Your task to perform on an android device: check android version Image 0: 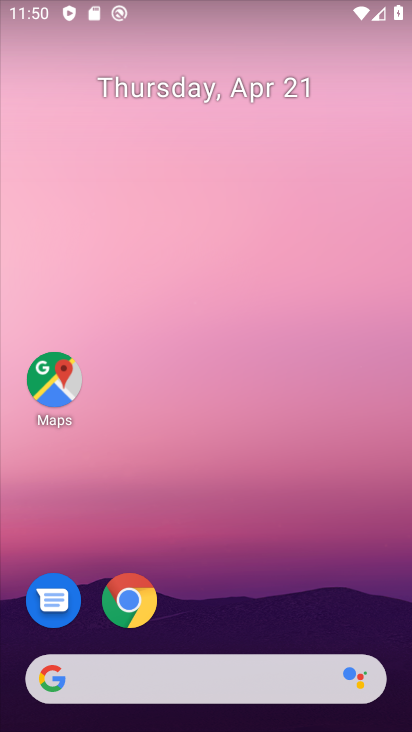
Step 0: drag from (363, 385) to (364, 215)
Your task to perform on an android device: check android version Image 1: 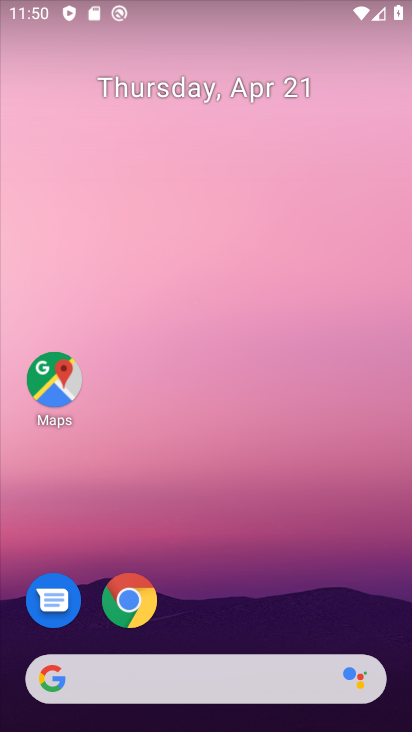
Step 1: drag from (400, 639) to (397, 138)
Your task to perform on an android device: check android version Image 2: 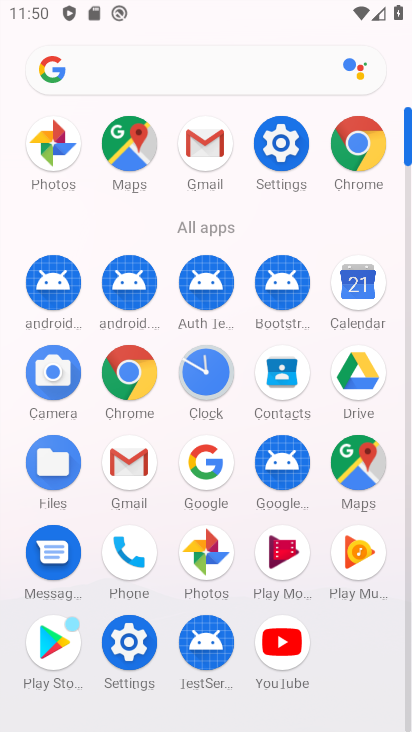
Step 2: click (271, 153)
Your task to perform on an android device: check android version Image 3: 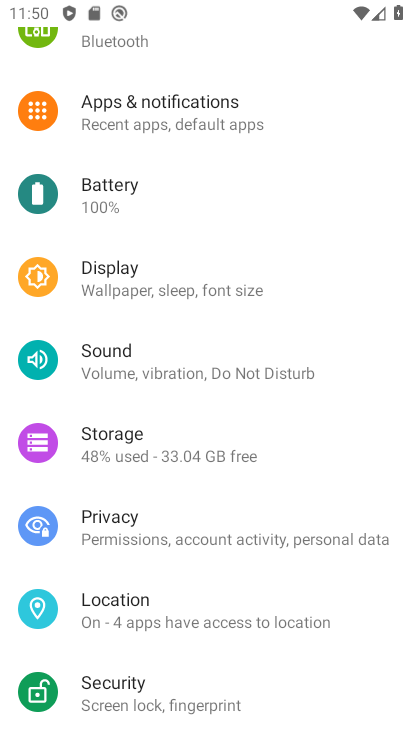
Step 3: drag from (318, 642) to (339, 239)
Your task to perform on an android device: check android version Image 4: 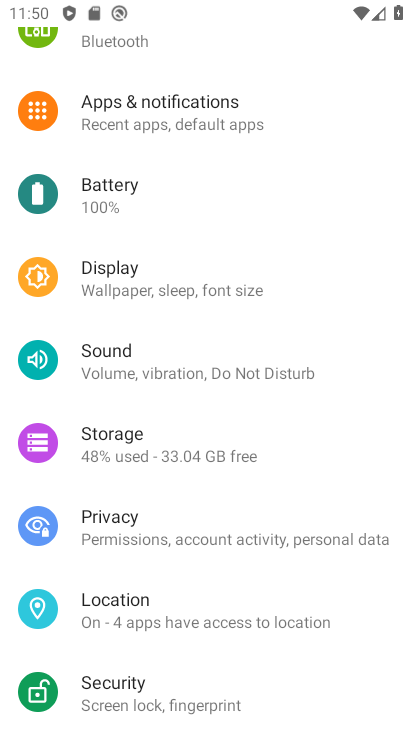
Step 4: drag from (373, 701) to (382, 155)
Your task to perform on an android device: check android version Image 5: 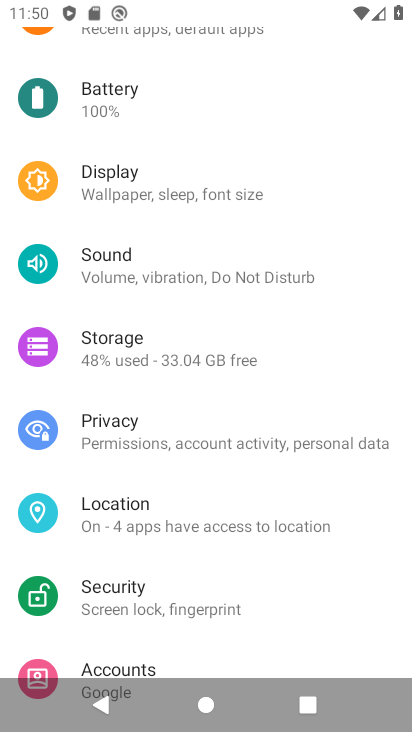
Step 5: drag from (372, 532) to (354, 143)
Your task to perform on an android device: check android version Image 6: 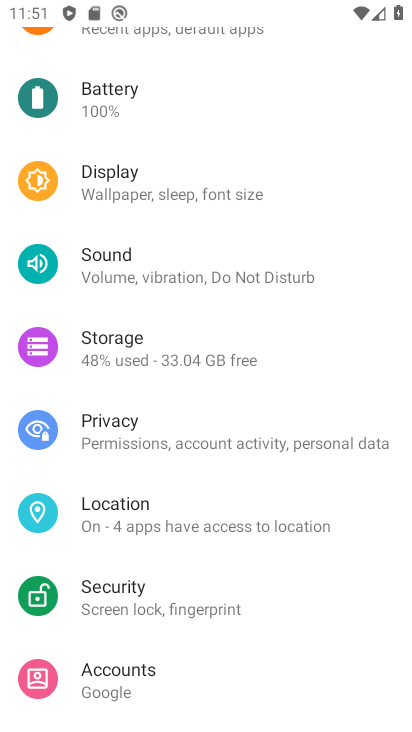
Step 6: drag from (353, 507) to (353, 225)
Your task to perform on an android device: check android version Image 7: 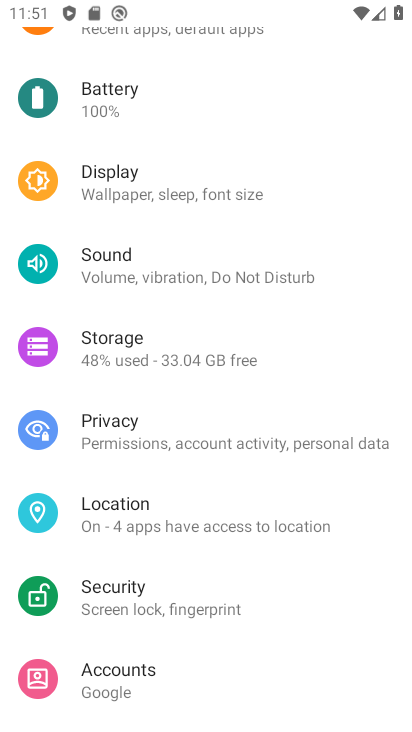
Step 7: drag from (362, 647) to (368, 214)
Your task to perform on an android device: check android version Image 8: 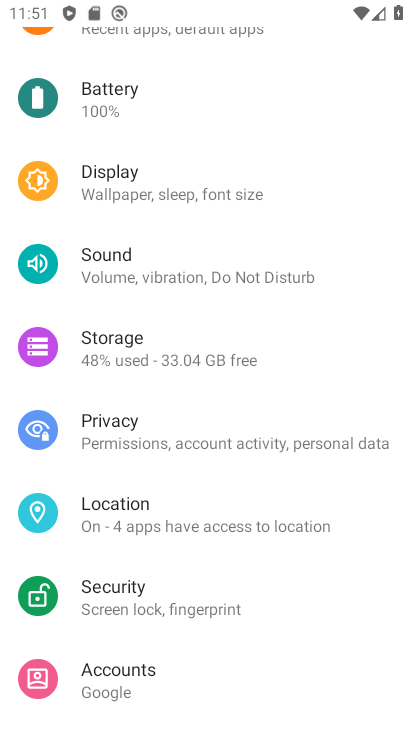
Step 8: drag from (353, 662) to (336, 238)
Your task to perform on an android device: check android version Image 9: 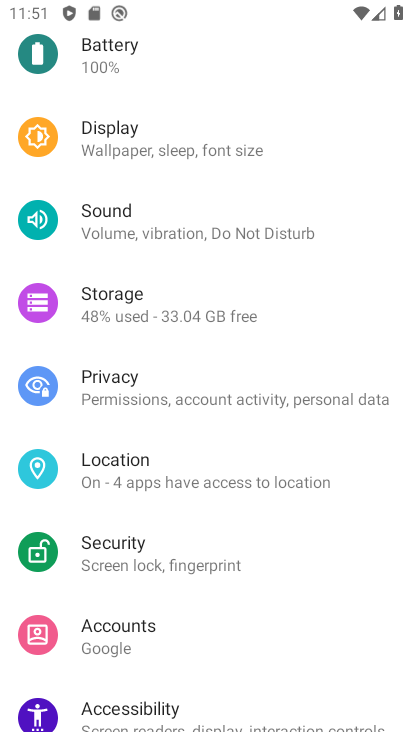
Step 9: drag from (350, 626) to (364, 233)
Your task to perform on an android device: check android version Image 10: 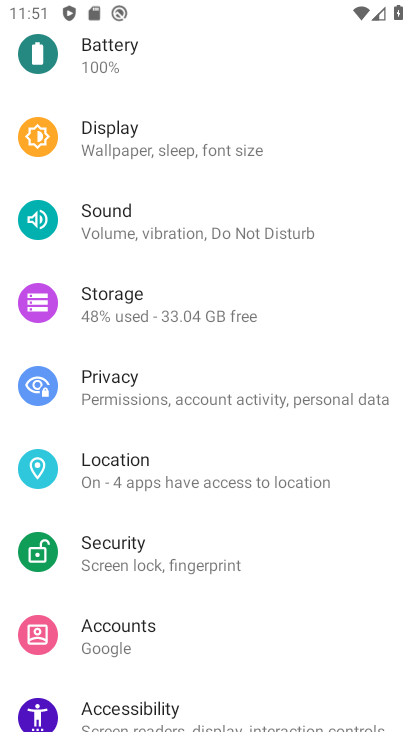
Step 10: drag from (367, 683) to (339, 177)
Your task to perform on an android device: check android version Image 11: 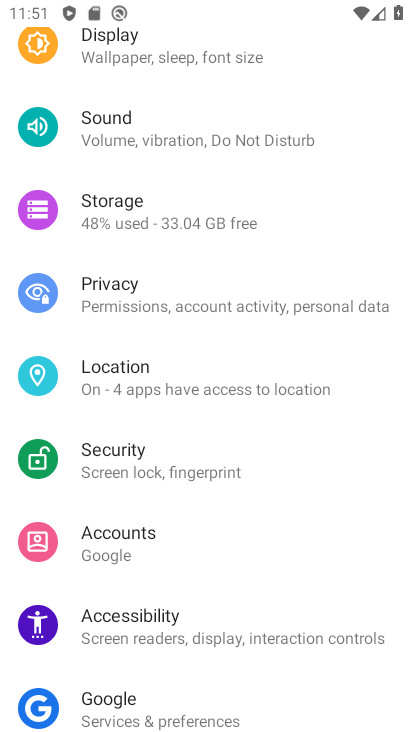
Step 11: drag from (379, 317) to (374, 189)
Your task to perform on an android device: check android version Image 12: 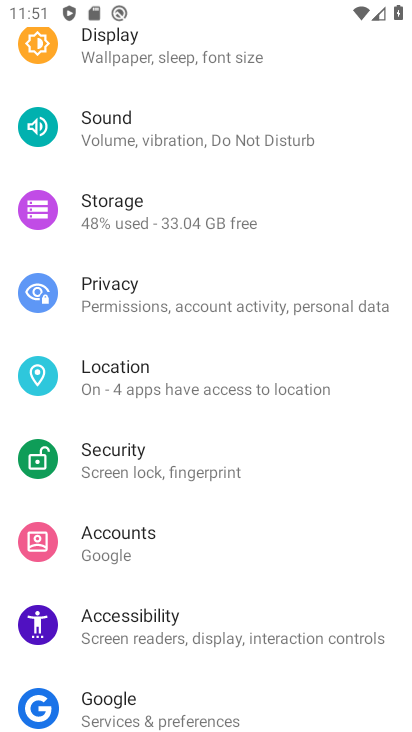
Step 12: drag from (358, 717) to (323, 376)
Your task to perform on an android device: check android version Image 13: 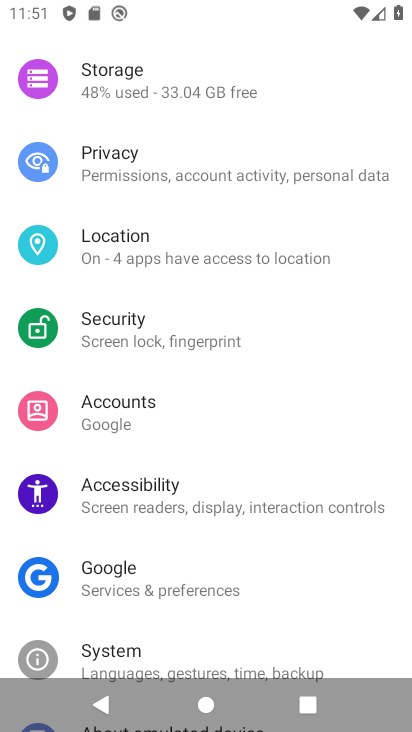
Step 13: drag from (371, 608) to (366, 231)
Your task to perform on an android device: check android version Image 14: 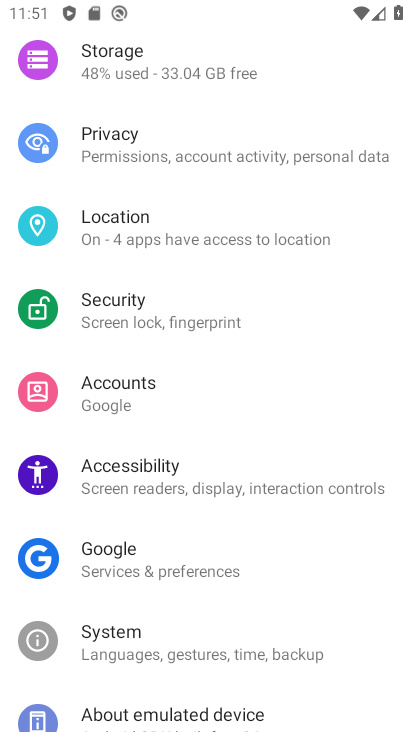
Step 14: click (62, 715)
Your task to perform on an android device: check android version Image 15: 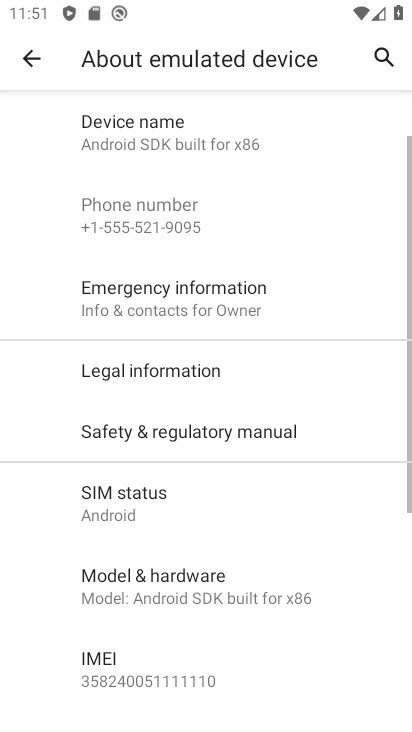
Step 15: drag from (355, 643) to (379, 136)
Your task to perform on an android device: check android version Image 16: 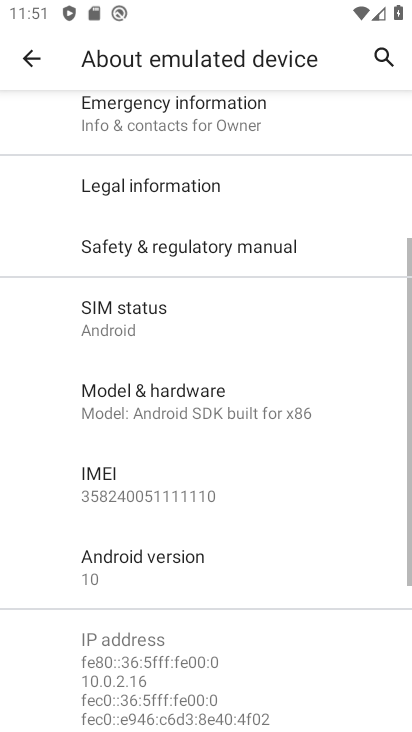
Step 16: click (132, 562)
Your task to perform on an android device: check android version Image 17: 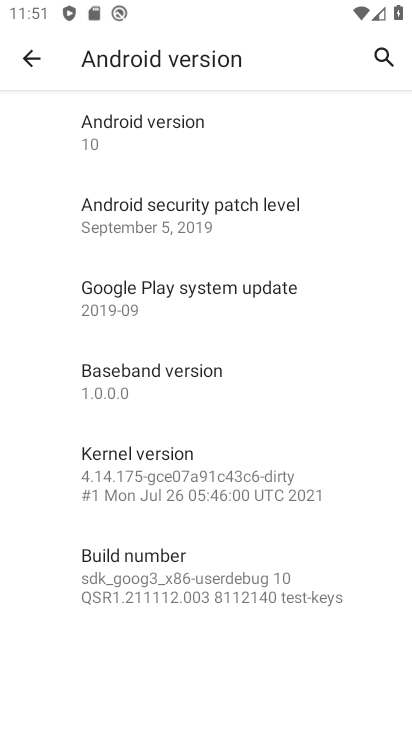
Step 17: click (100, 135)
Your task to perform on an android device: check android version Image 18: 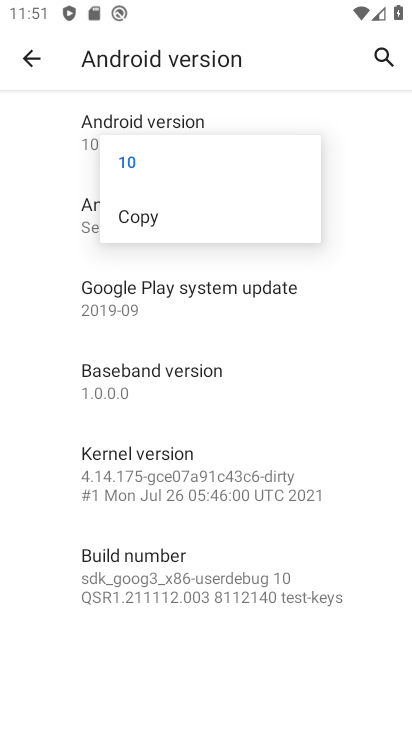
Step 18: click (353, 127)
Your task to perform on an android device: check android version Image 19: 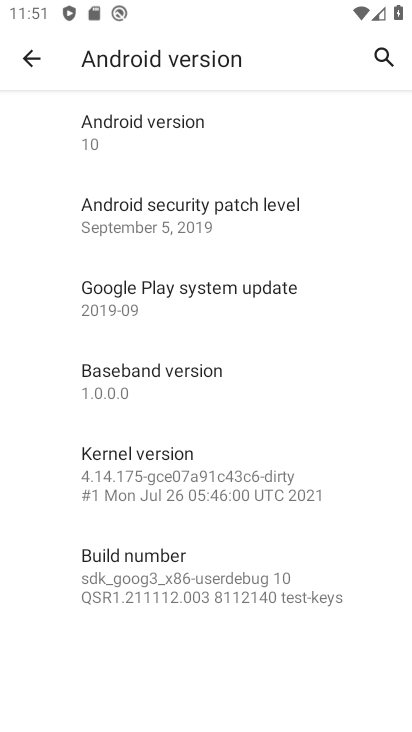
Step 19: task complete